Your task to perform on an android device: open app "McDonald's" Image 0: 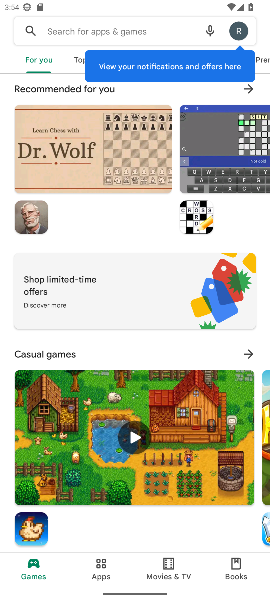
Step 0: click (106, 34)
Your task to perform on an android device: open app "McDonald's" Image 1: 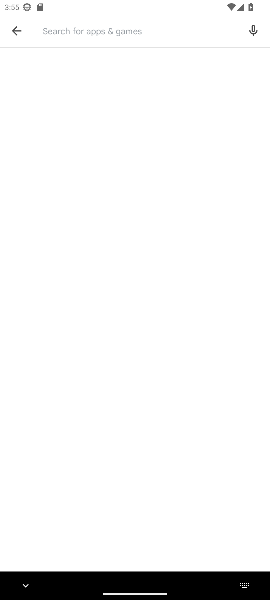
Step 1: type "mcdonald"
Your task to perform on an android device: open app "McDonald's" Image 2: 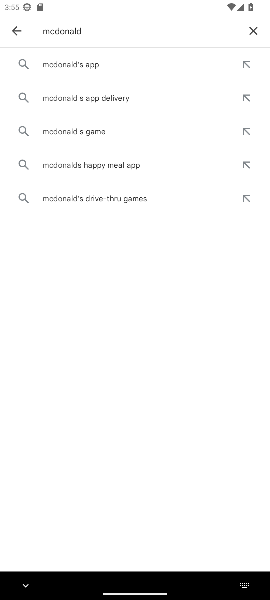
Step 2: click (82, 64)
Your task to perform on an android device: open app "McDonald's" Image 3: 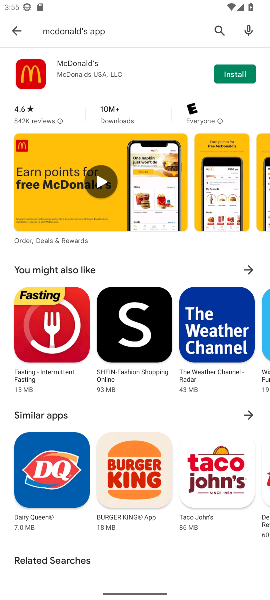
Step 3: task complete